Your task to perform on an android device: Open settings on Google Maps Image 0: 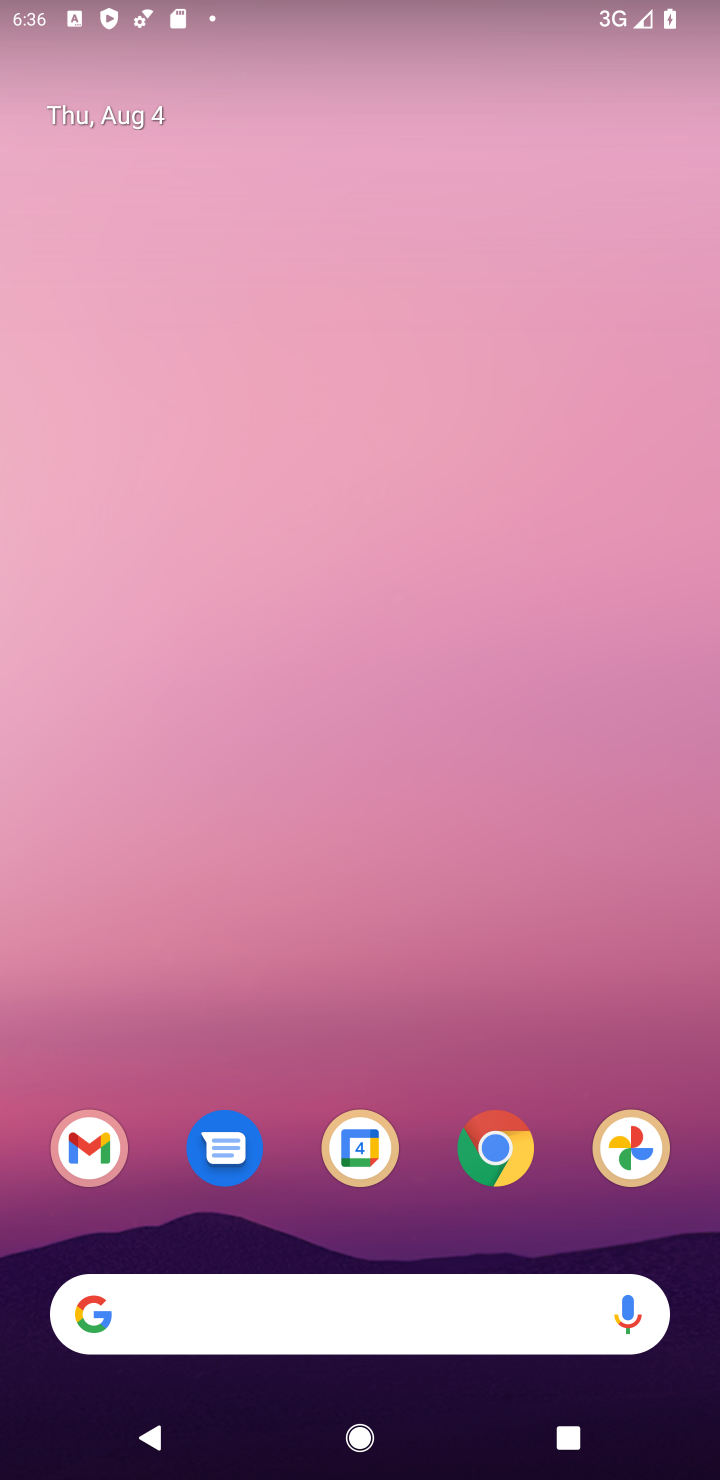
Step 0: drag from (453, 1232) to (458, 239)
Your task to perform on an android device: Open settings on Google Maps Image 1: 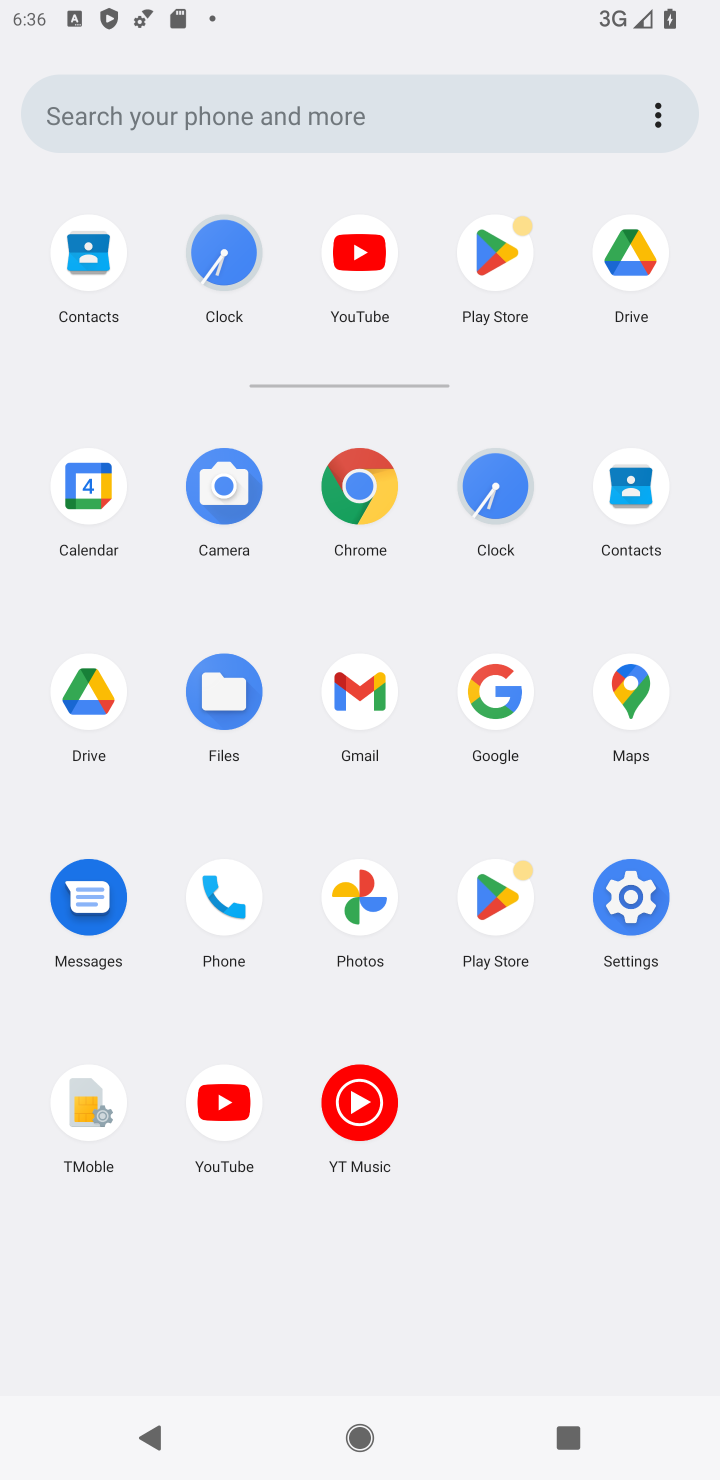
Step 1: click (631, 685)
Your task to perform on an android device: Open settings on Google Maps Image 2: 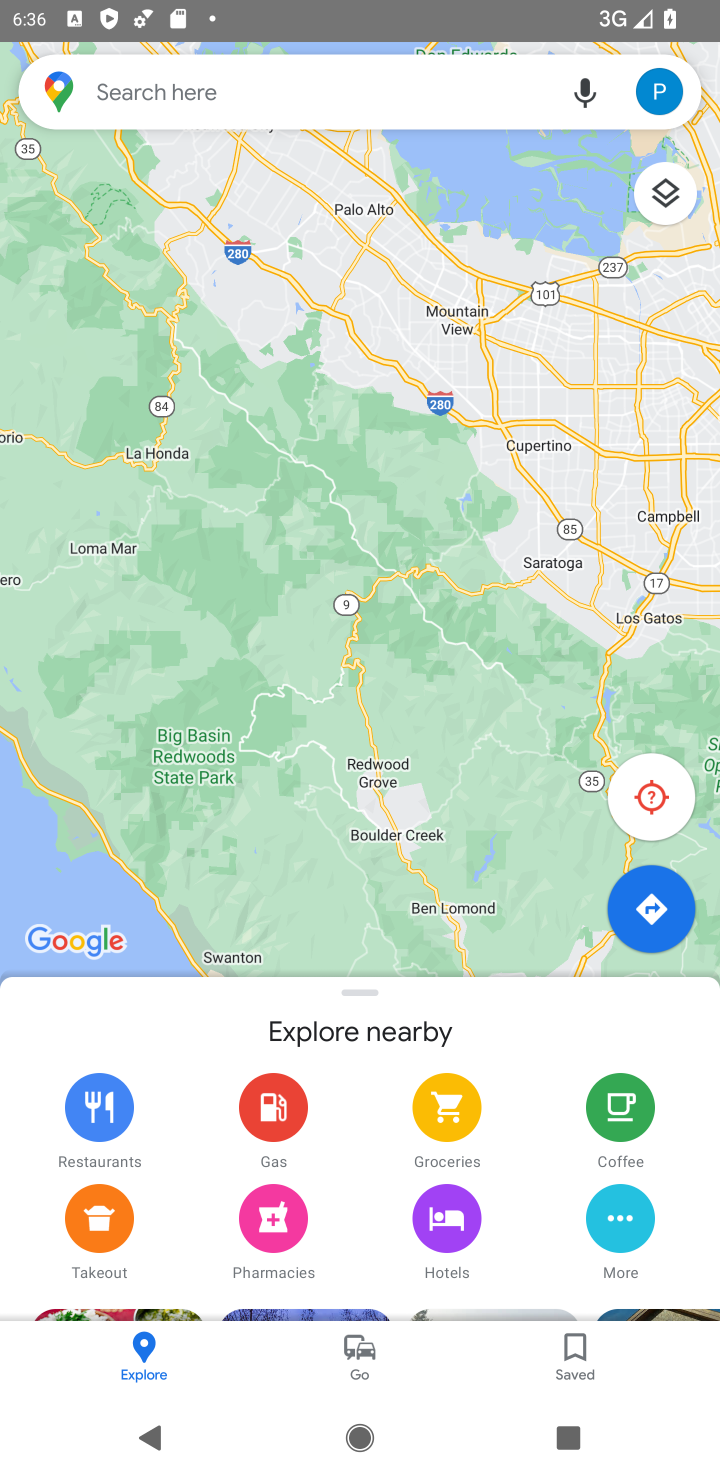
Step 2: click (658, 91)
Your task to perform on an android device: Open settings on Google Maps Image 3: 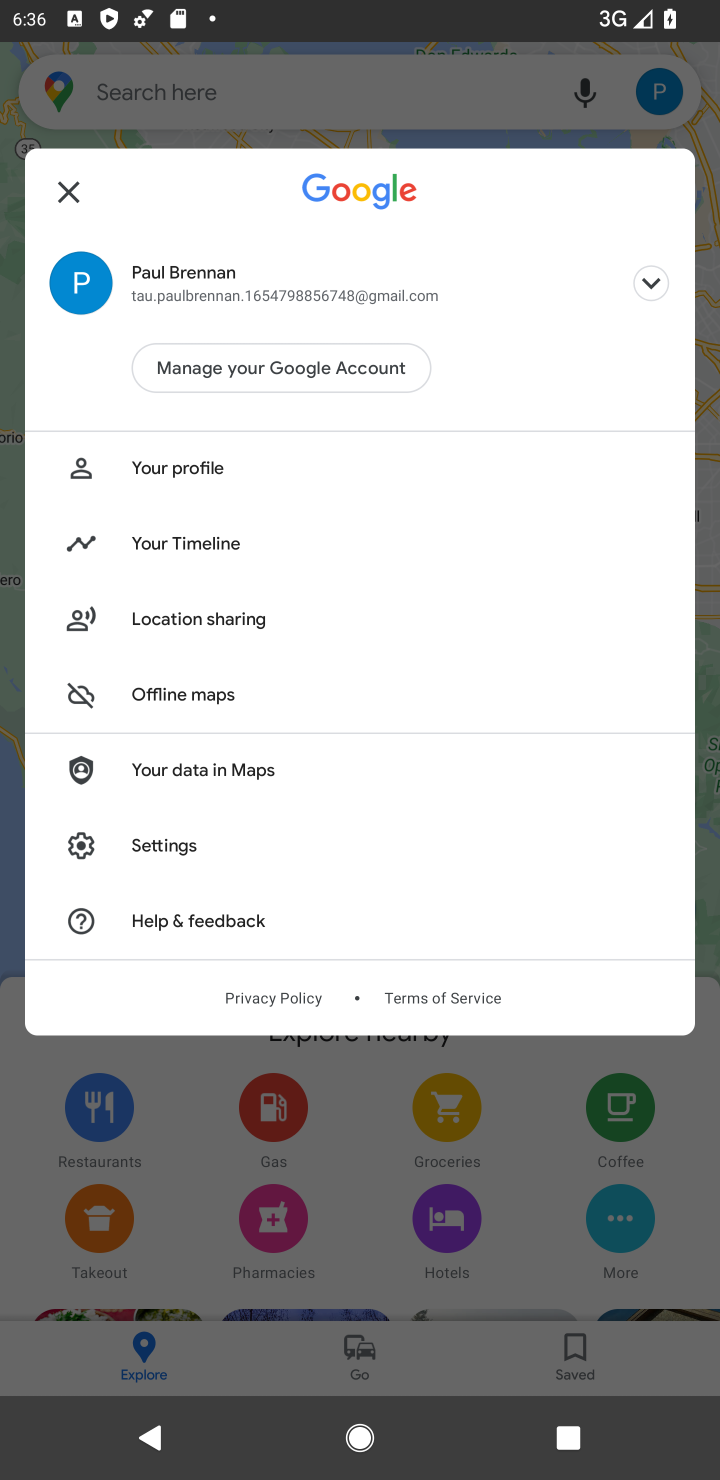
Step 3: click (152, 852)
Your task to perform on an android device: Open settings on Google Maps Image 4: 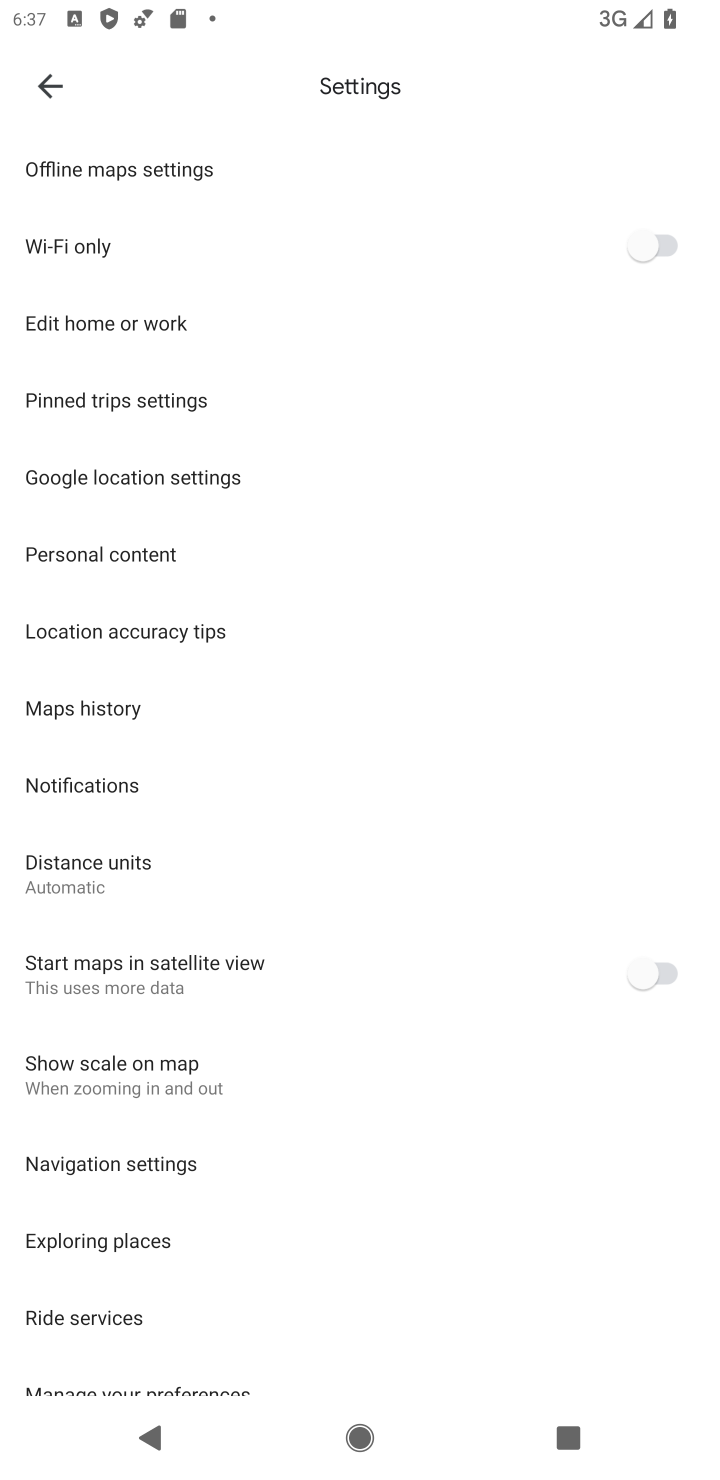
Step 4: task complete